Your task to perform on an android device: Search for Mexican restaurants on Maps Image 0: 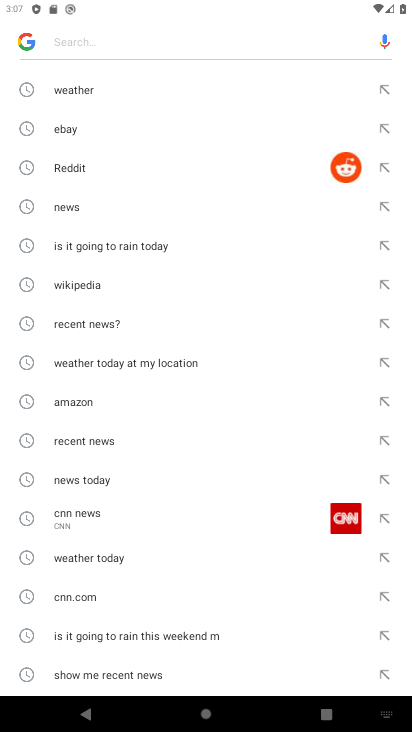
Step 0: press home button
Your task to perform on an android device: Search for Mexican restaurants on Maps Image 1: 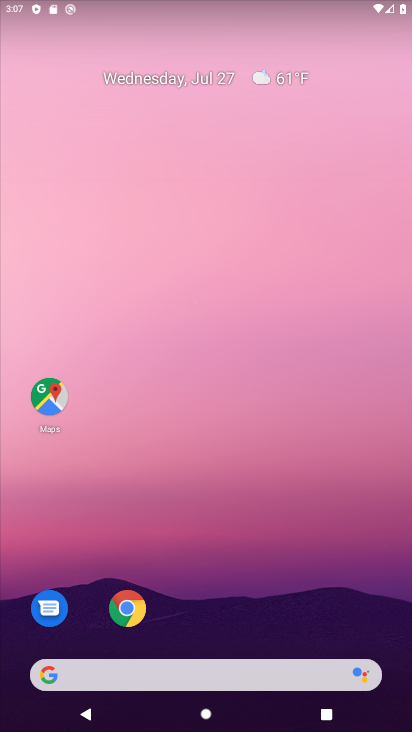
Step 1: click (51, 406)
Your task to perform on an android device: Search for Mexican restaurants on Maps Image 2: 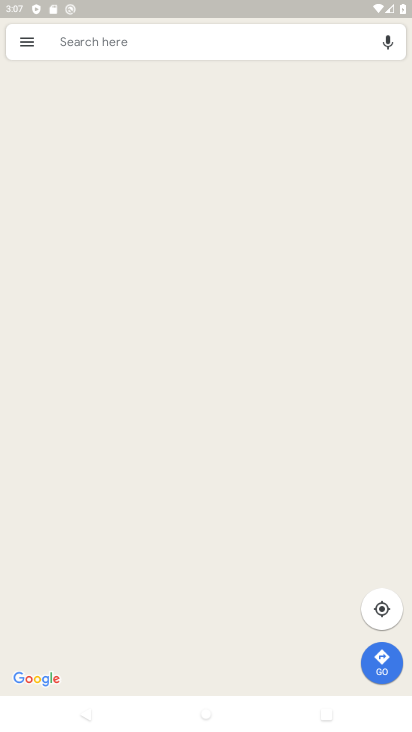
Step 2: click (196, 42)
Your task to perform on an android device: Search for Mexican restaurants on Maps Image 3: 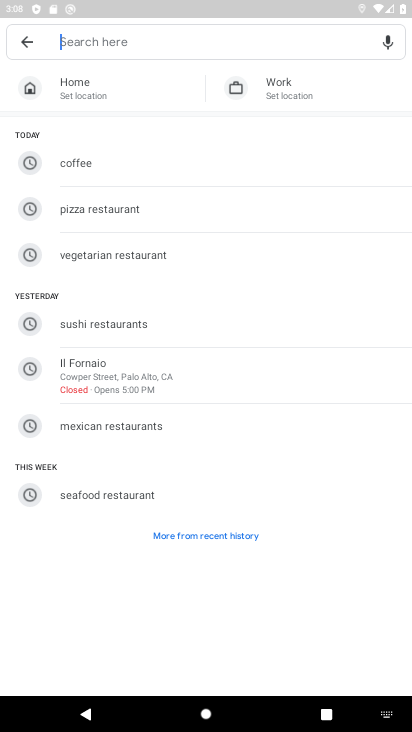
Step 3: type "mexican restaurants"
Your task to perform on an android device: Search for Mexican restaurants on Maps Image 4: 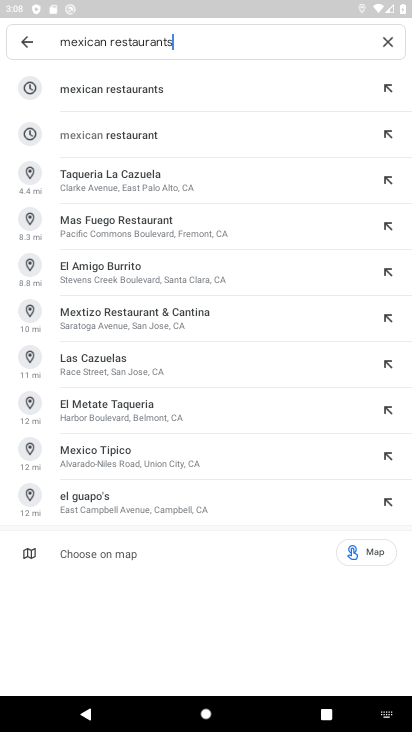
Step 4: click (219, 87)
Your task to perform on an android device: Search for Mexican restaurants on Maps Image 5: 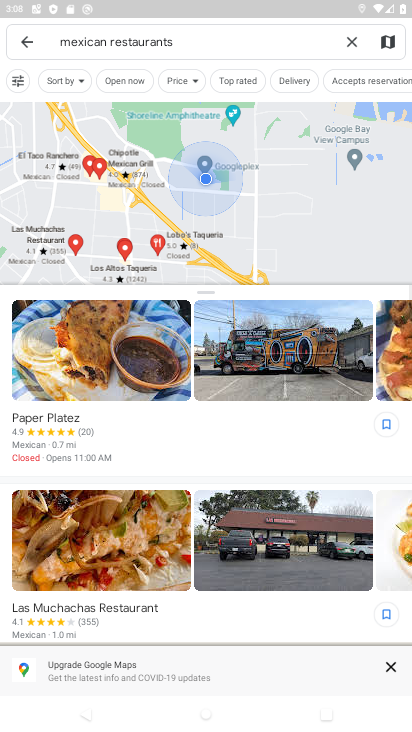
Step 5: task complete